Your task to perform on an android device: Search for pizza restaurants on Maps Image 0: 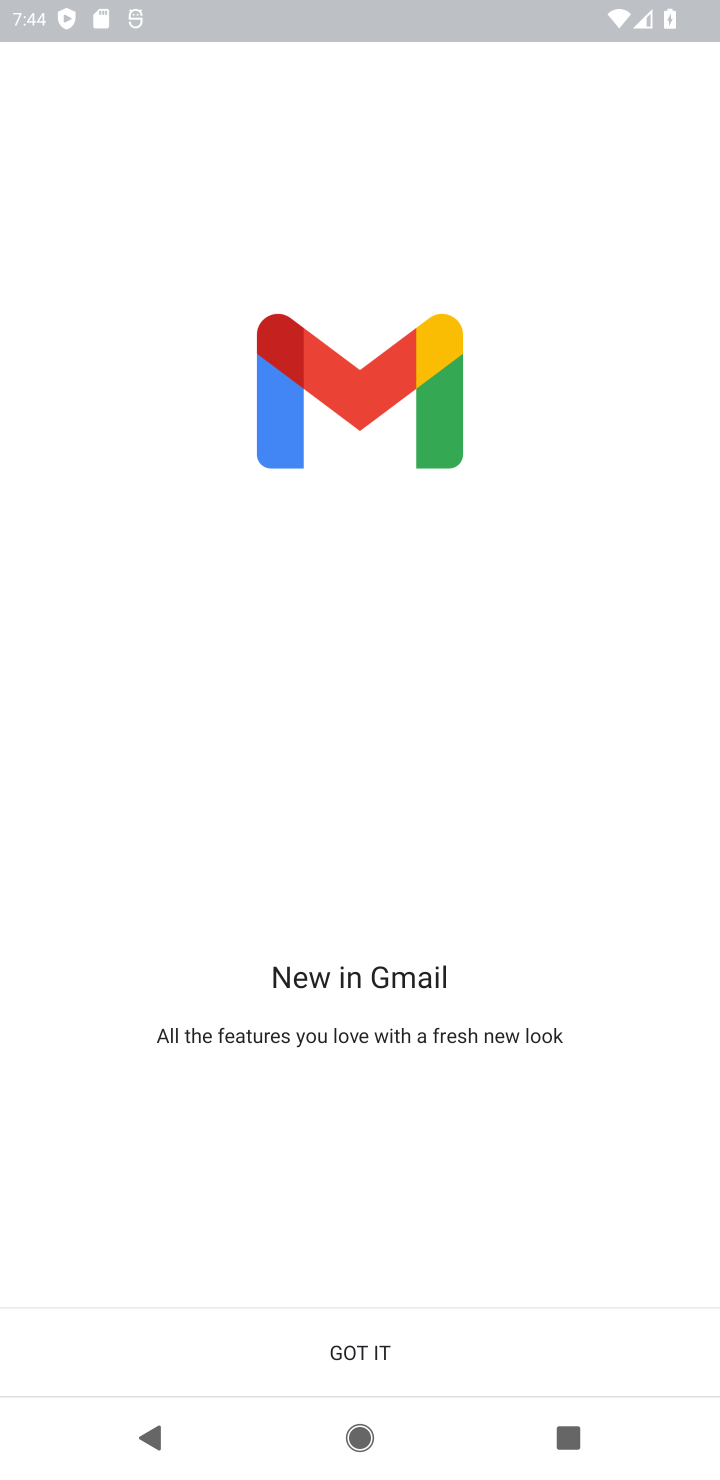
Step 0: press home button
Your task to perform on an android device: Search for pizza restaurants on Maps Image 1: 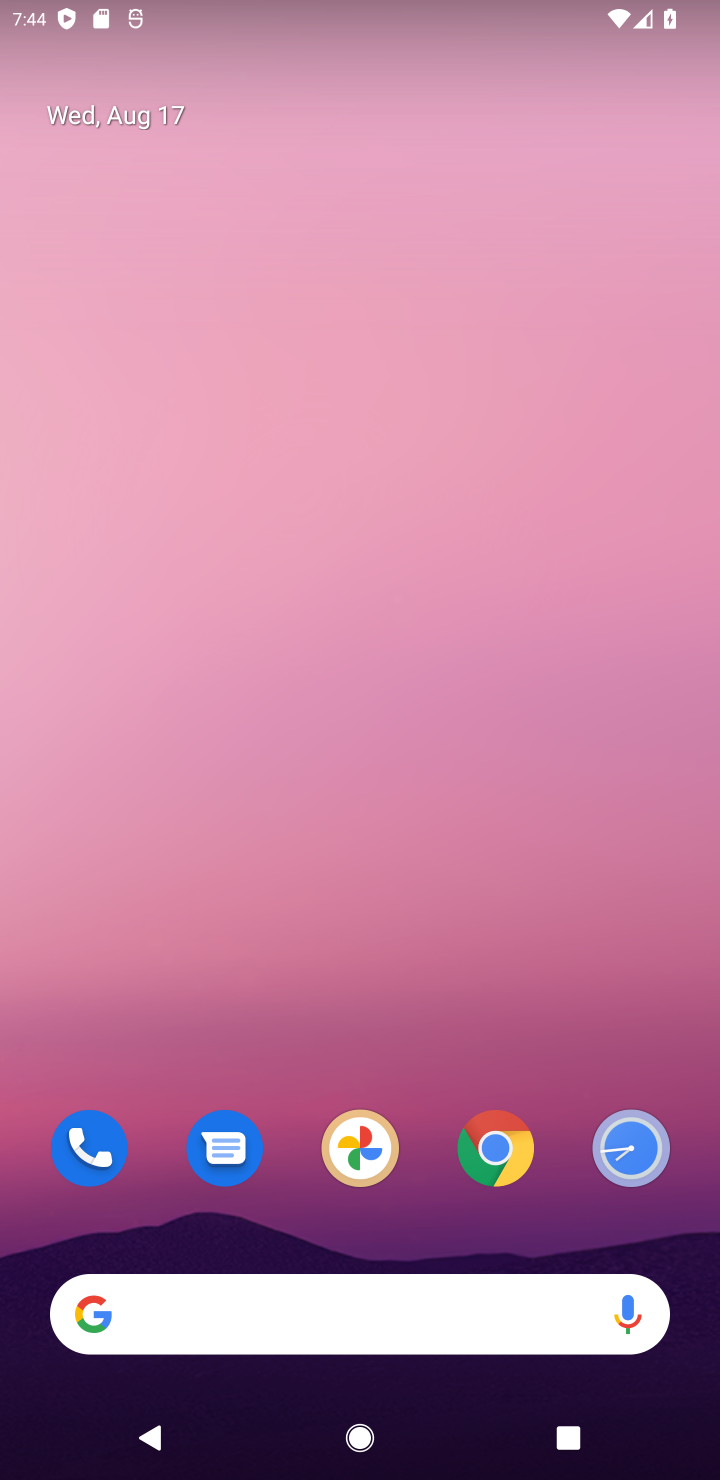
Step 1: drag from (346, 1242) to (314, 331)
Your task to perform on an android device: Search for pizza restaurants on Maps Image 2: 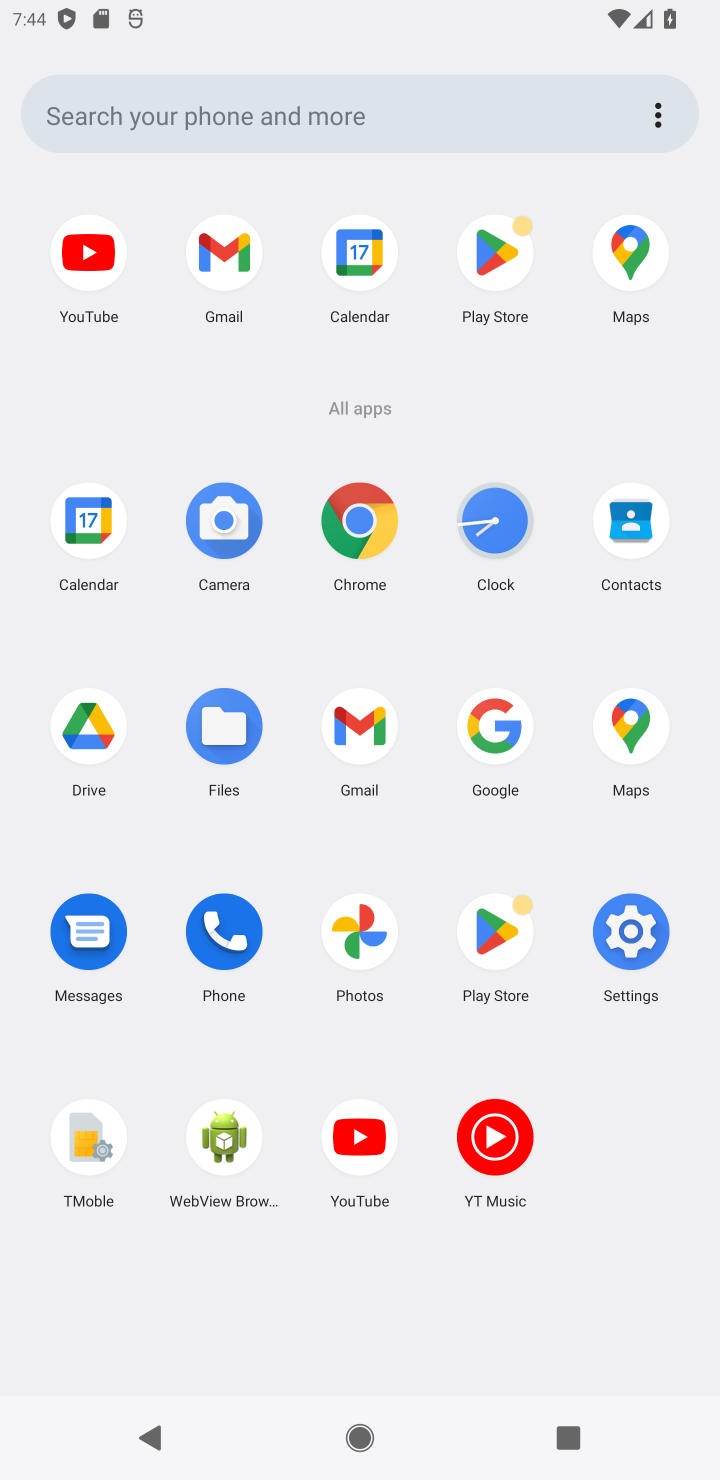
Step 2: click (645, 742)
Your task to perform on an android device: Search for pizza restaurants on Maps Image 3: 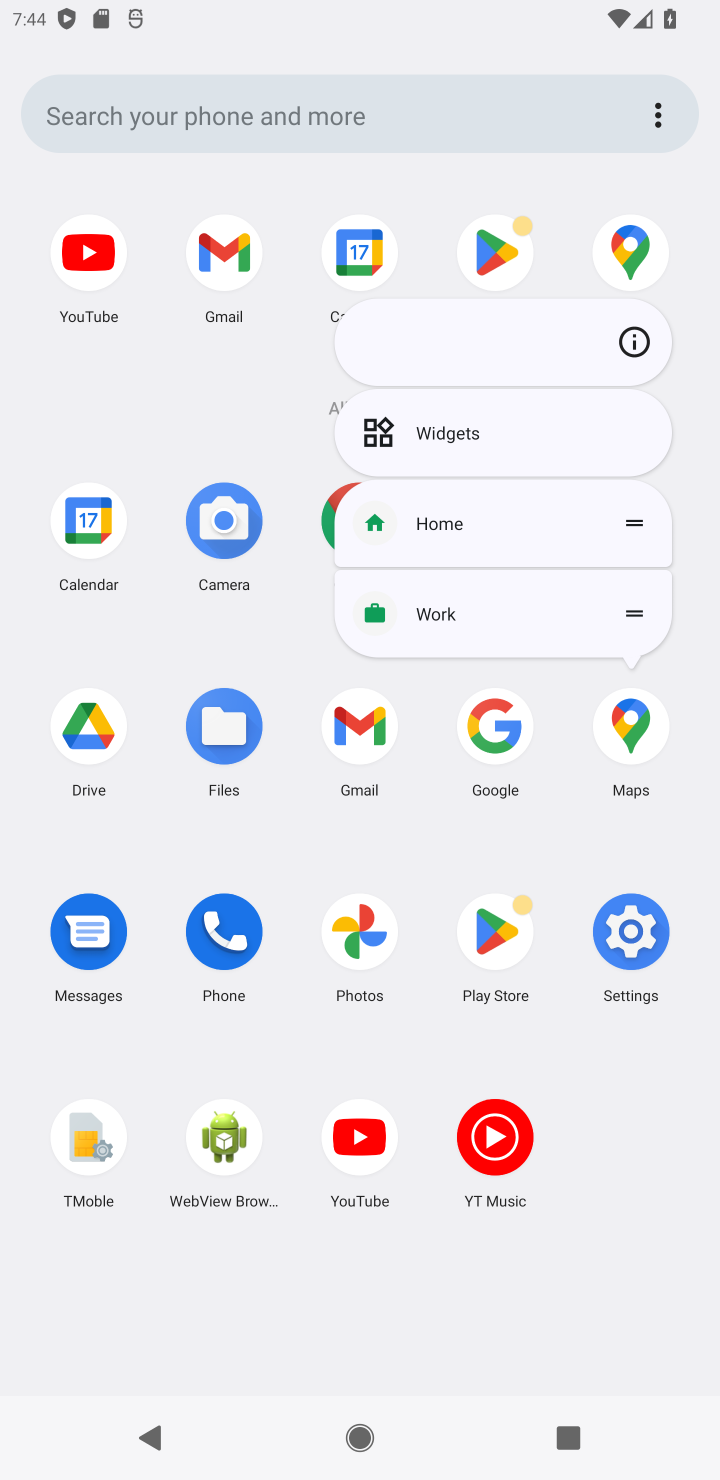
Step 3: click (632, 713)
Your task to perform on an android device: Search for pizza restaurants on Maps Image 4: 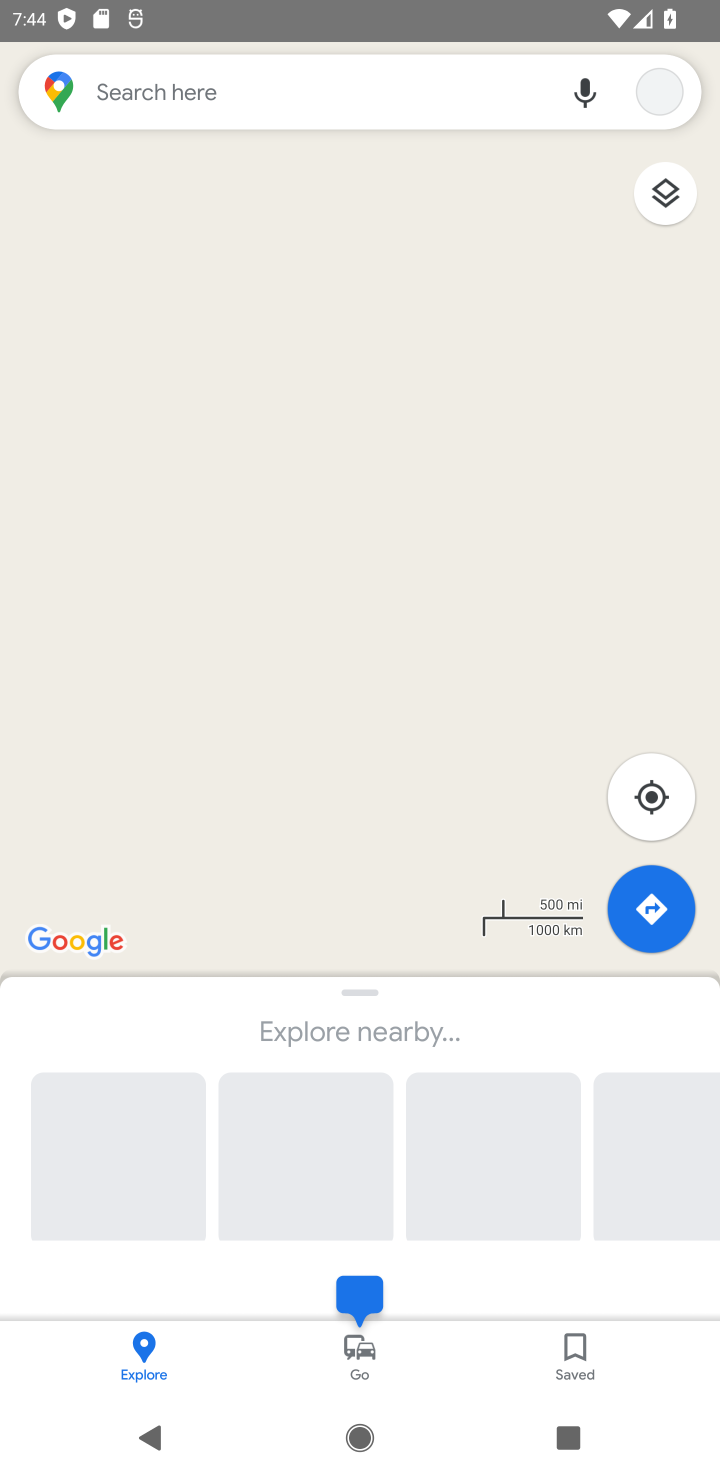
Step 4: click (128, 85)
Your task to perform on an android device: Search for pizza restaurants on Maps Image 5: 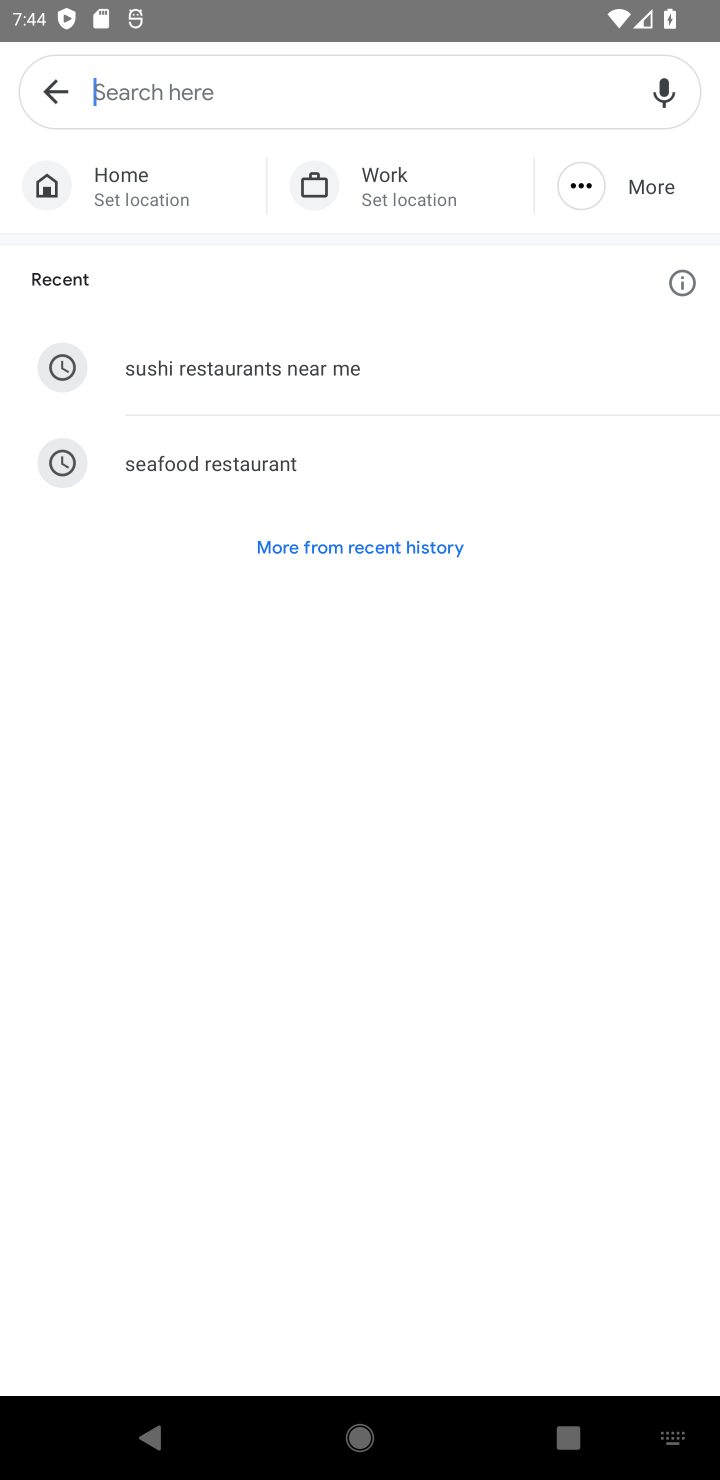
Step 5: click (331, 549)
Your task to perform on an android device: Search for pizza restaurants on Maps Image 6: 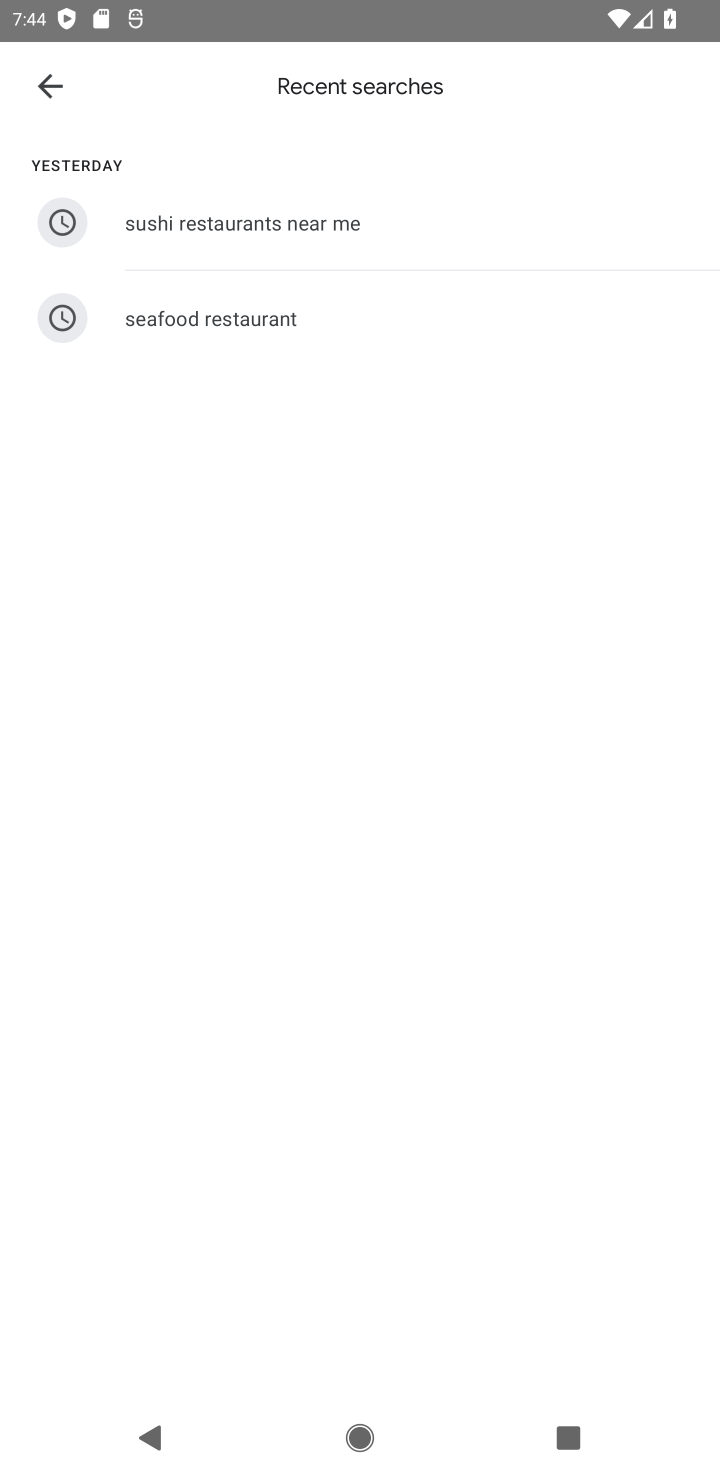
Step 6: click (34, 82)
Your task to perform on an android device: Search for pizza restaurants on Maps Image 7: 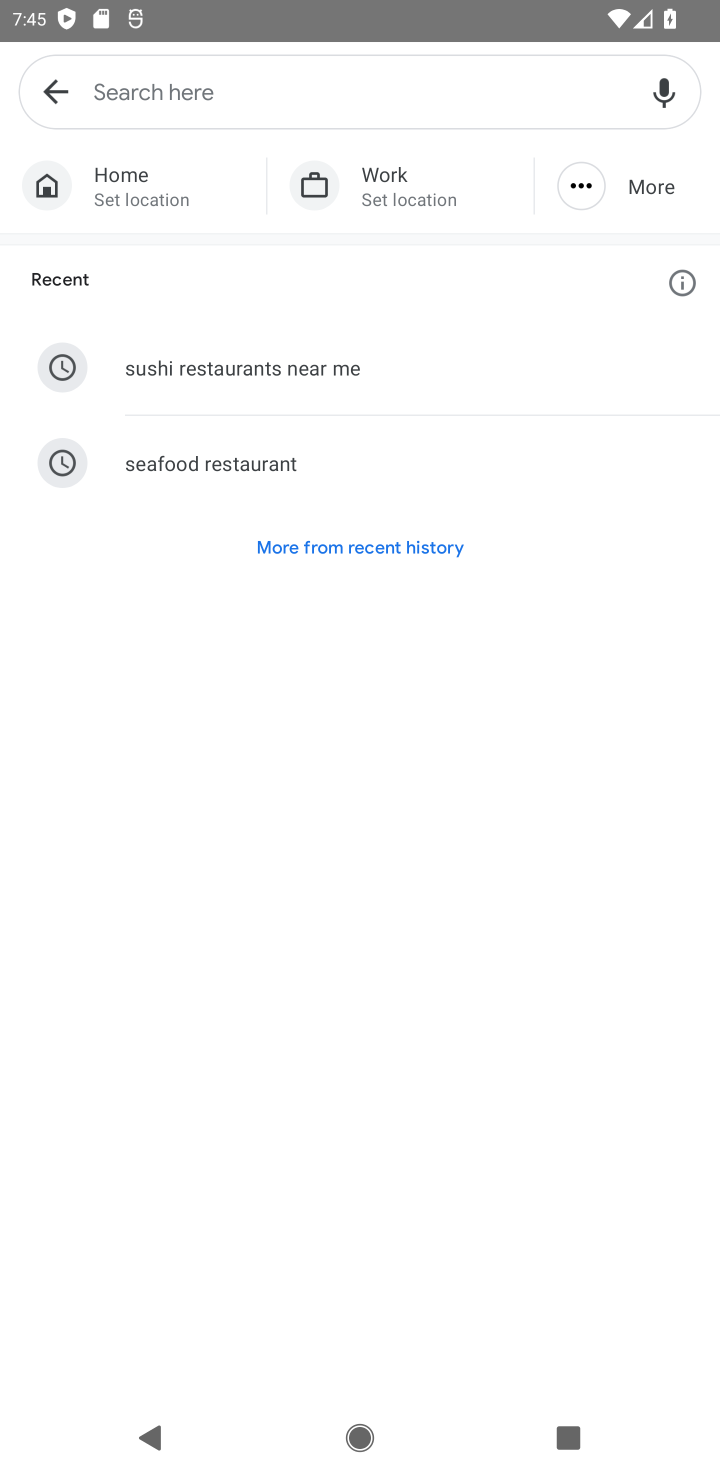
Step 7: type "pizza restaurants"
Your task to perform on an android device: Search for pizza restaurants on Maps Image 8: 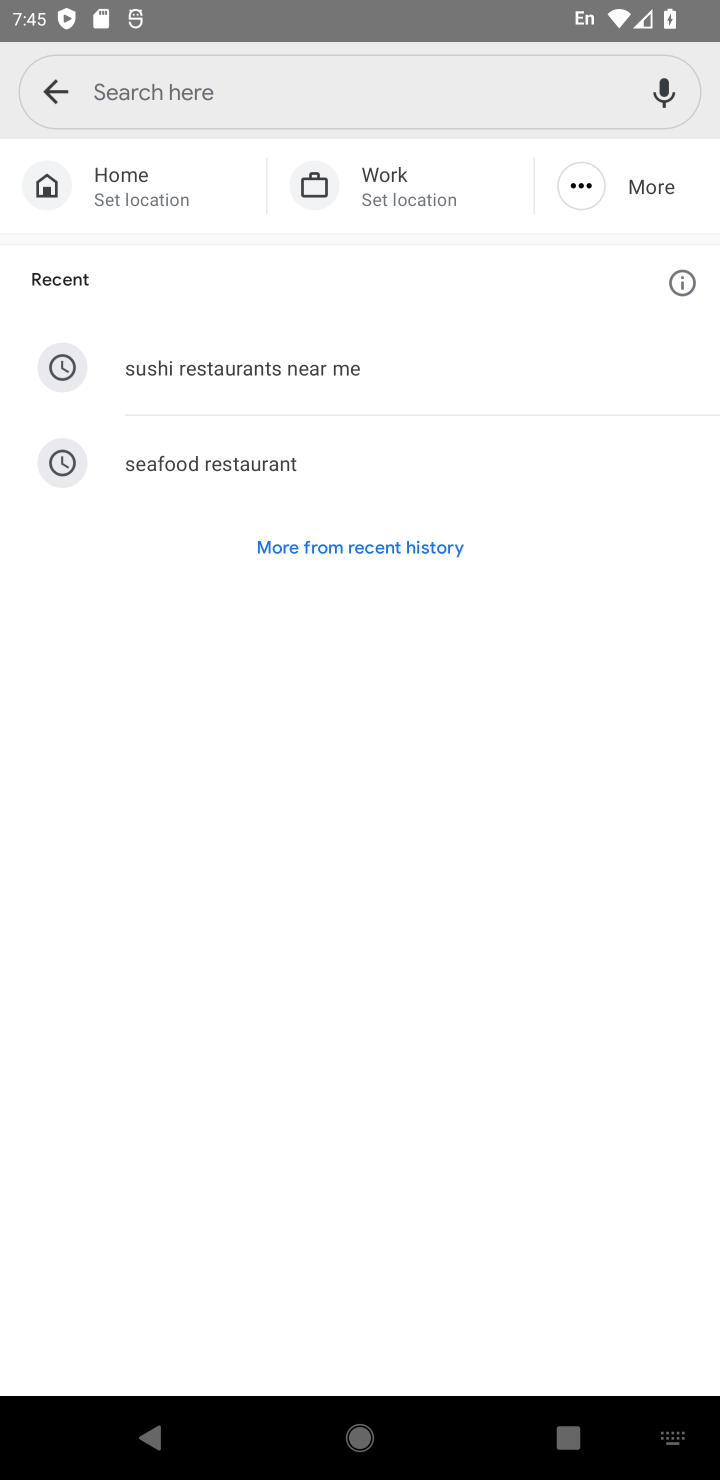
Step 8: click (131, 90)
Your task to perform on an android device: Search for pizza restaurants on Maps Image 9: 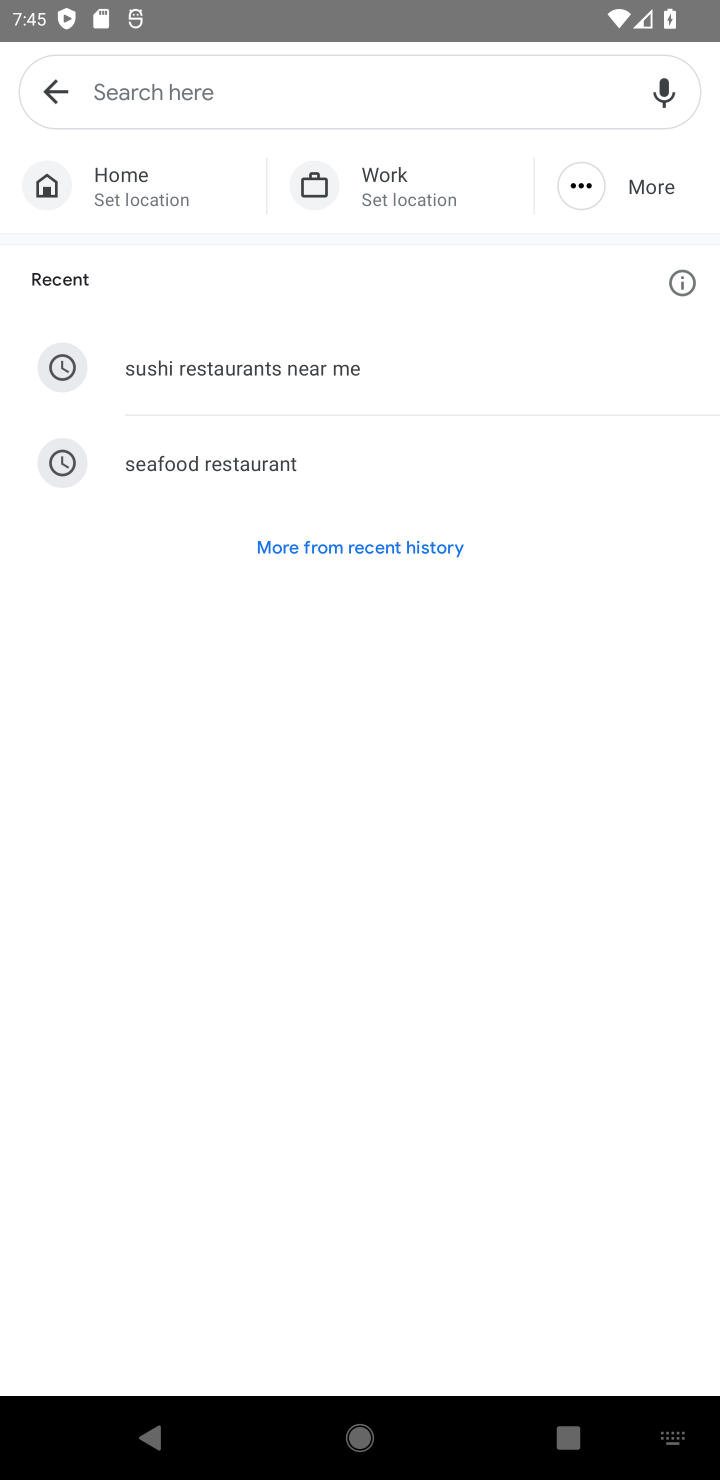
Step 9: type "pizza restaurants"
Your task to perform on an android device: Search for pizza restaurants on Maps Image 10: 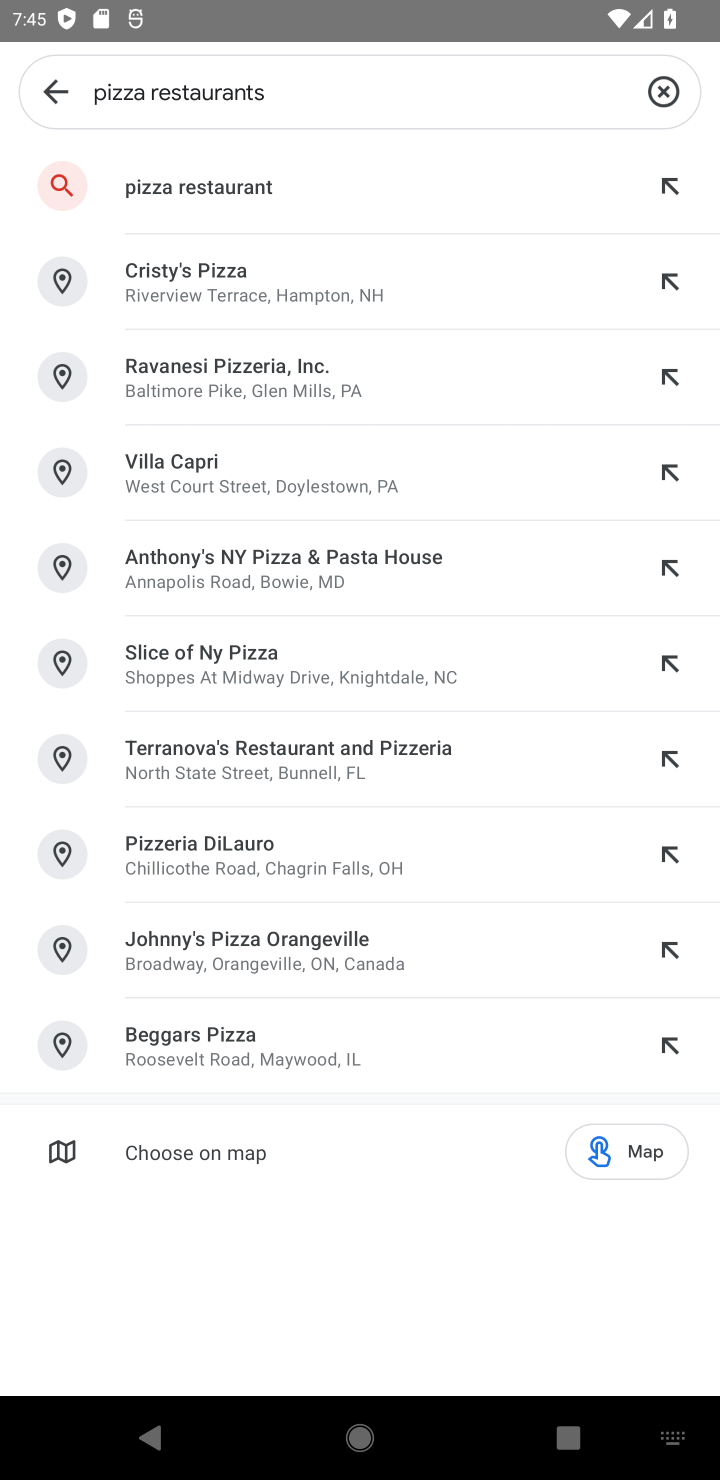
Step 10: click (179, 194)
Your task to perform on an android device: Search for pizza restaurants on Maps Image 11: 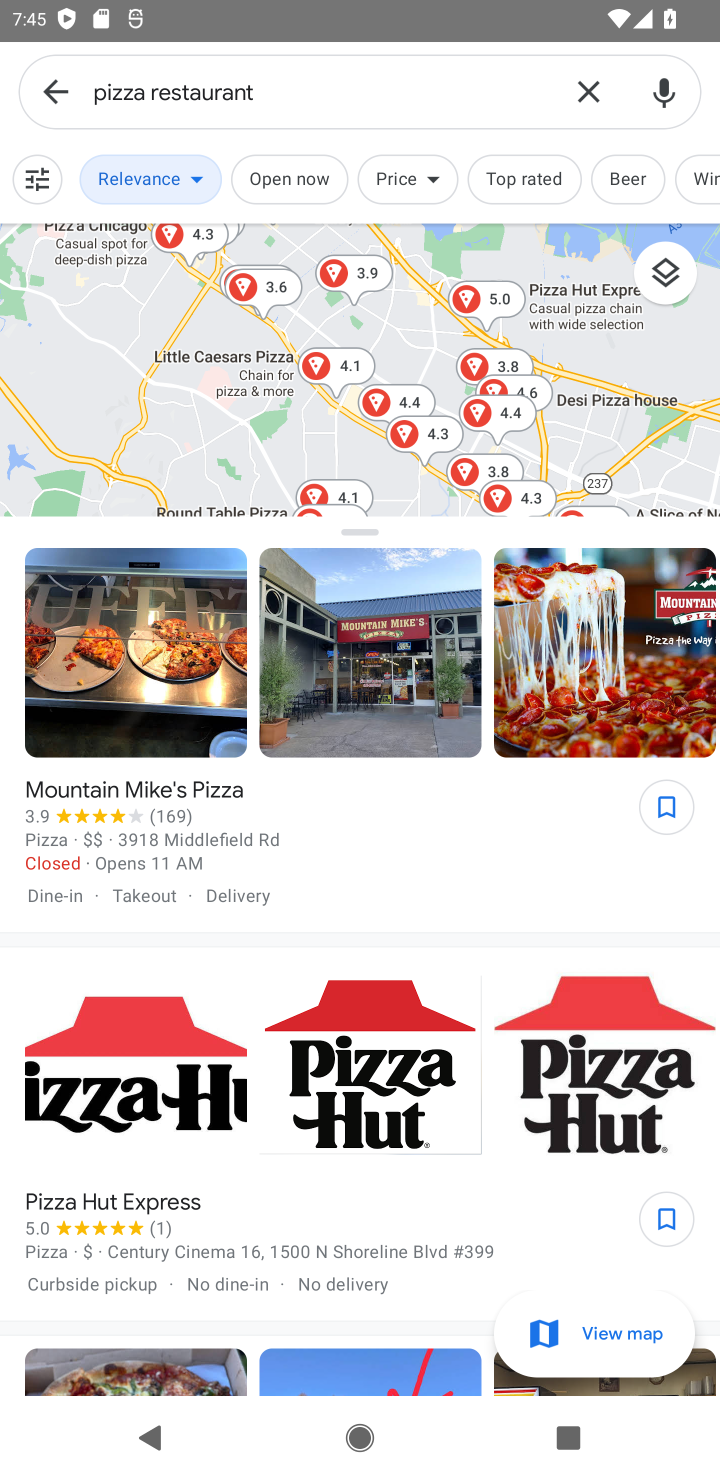
Step 11: task complete